Your task to perform on an android device: visit the assistant section in the google photos Image 0: 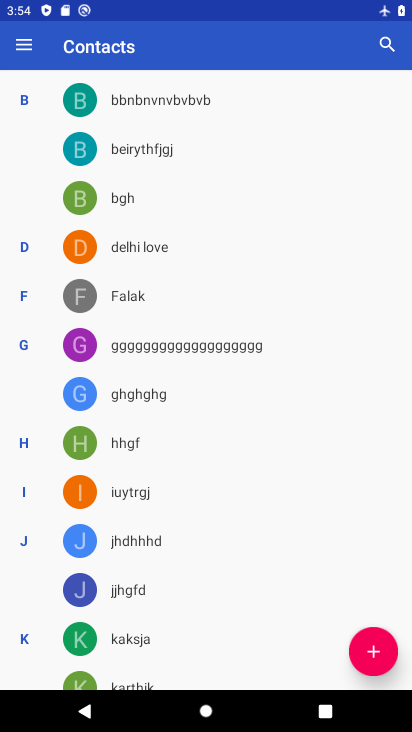
Step 0: press home button
Your task to perform on an android device: visit the assistant section in the google photos Image 1: 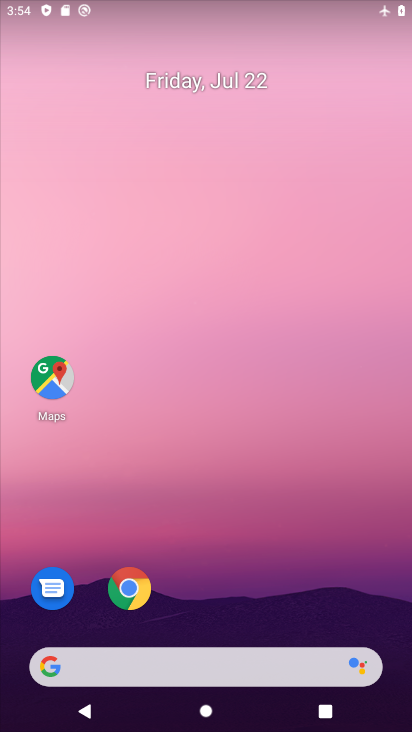
Step 1: drag from (276, 618) to (197, 59)
Your task to perform on an android device: visit the assistant section in the google photos Image 2: 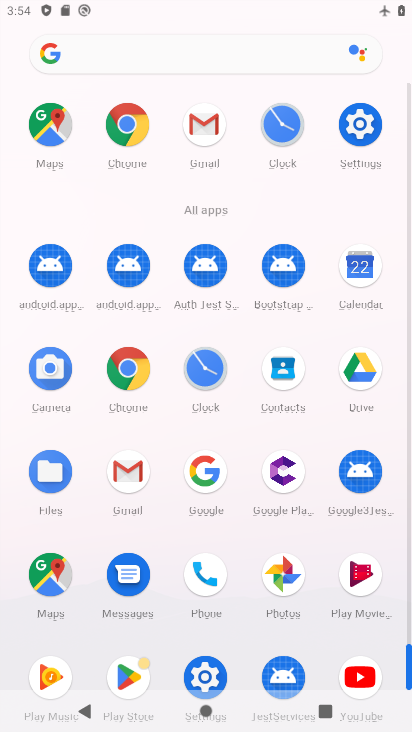
Step 2: click (288, 582)
Your task to perform on an android device: visit the assistant section in the google photos Image 3: 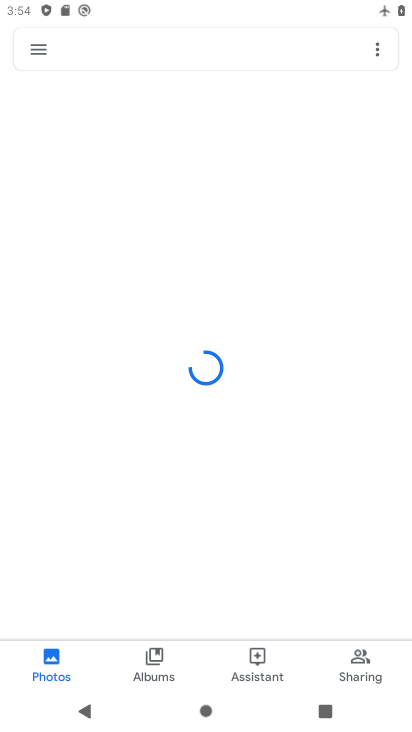
Step 3: click (259, 654)
Your task to perform on an android device: visit the assistant section in the google photos Image 4: 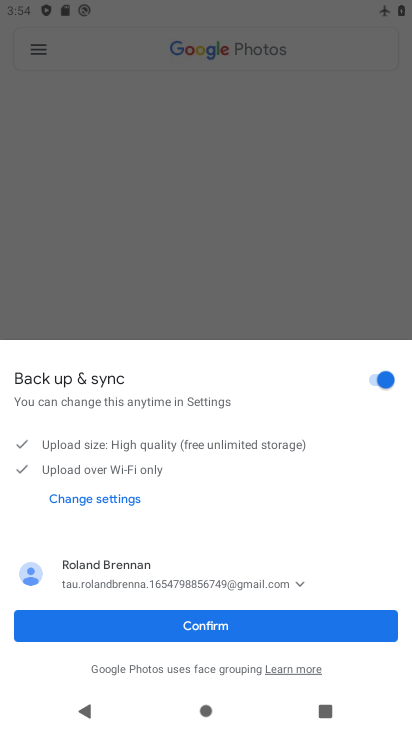
Step 4: click (254, 623)
Your task to perform on an android device: visit the assistant section in the google photos Image 5: 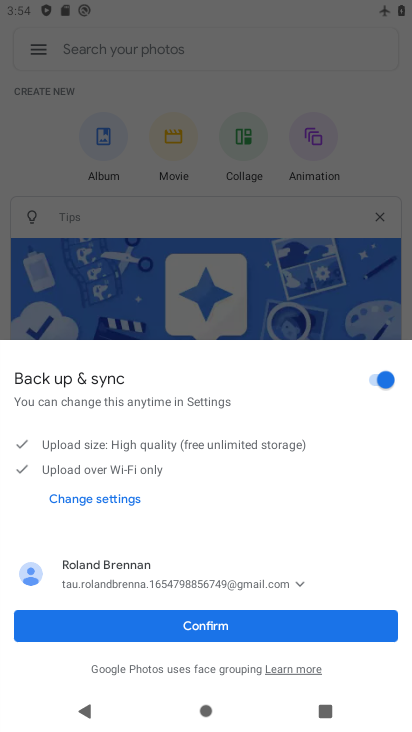
Step 5: click (254, 623)
Your task to perform on an android device: visit the assistant section in the google photos Image 6: 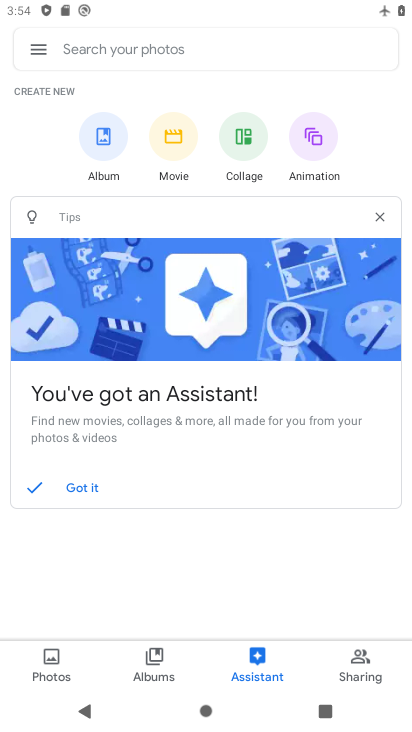
Step 6: task complete